Your task to perform on an android device: Open battery settings Image 0: 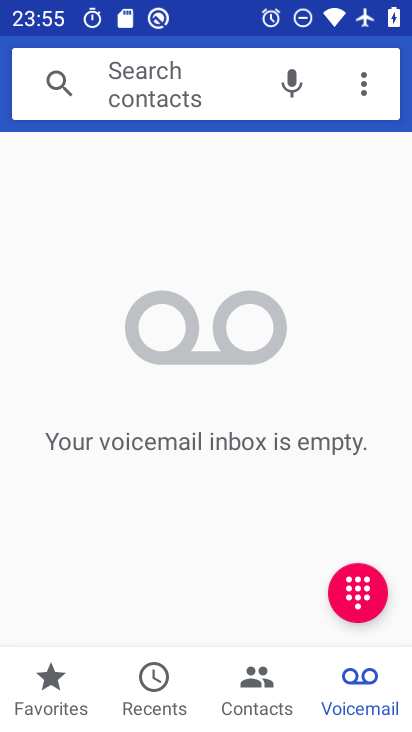
Step 0: press home button
Your task to perform on an android device: Open battery settings Image 1: 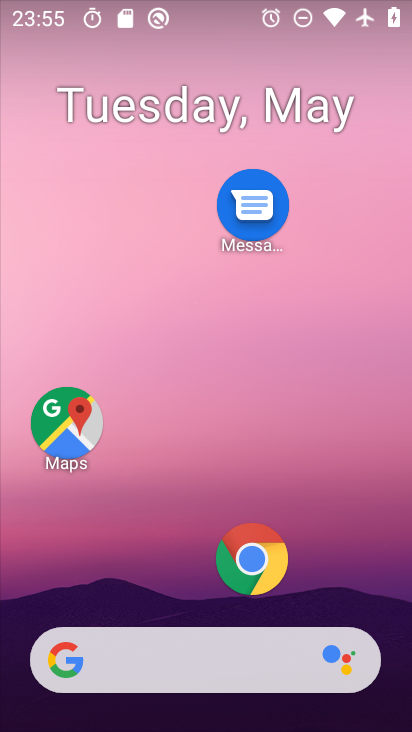
Step 1: drag from (183, 614) to (199, 181)
Your task to perform on an android device: Open battery settings Image 2: 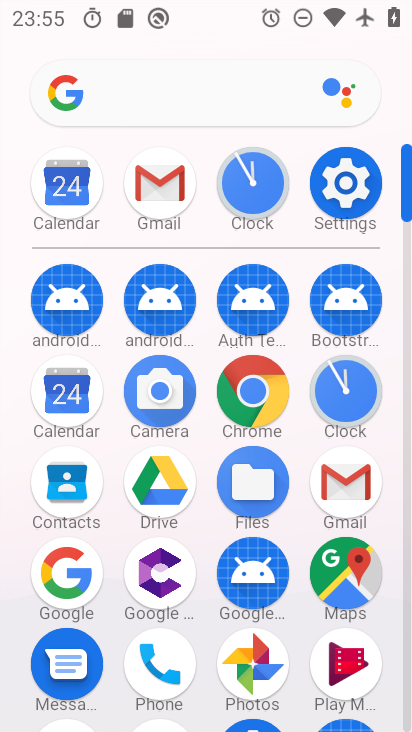
Step 2: click (335, 201)
Your task to perform on an android device: Open battery settings Image 3: 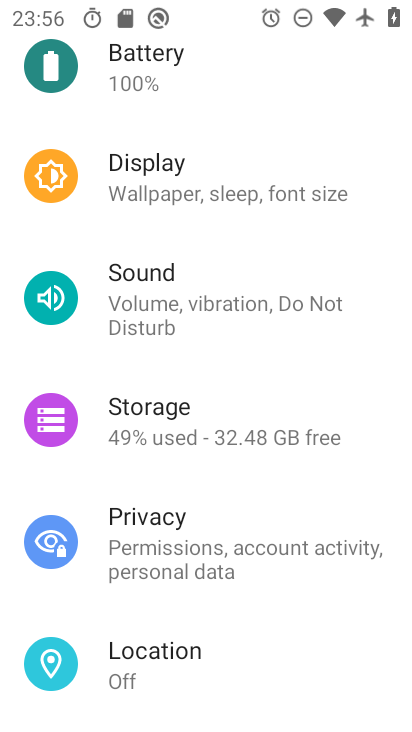
Step 3: click (165, 72)
Your task to perform on an android device: Open battery settings Image 4: 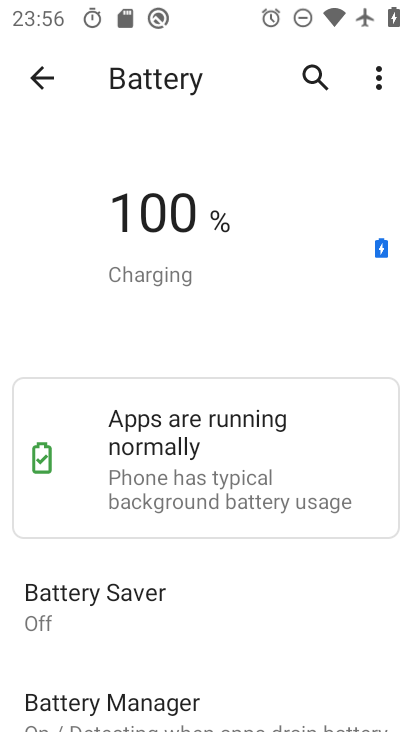
Step 4: task complete